Your task to perform on an android device: open app "WhatsApp Messenger" (install if not already installed), go to login, and select forgot password Image 0: 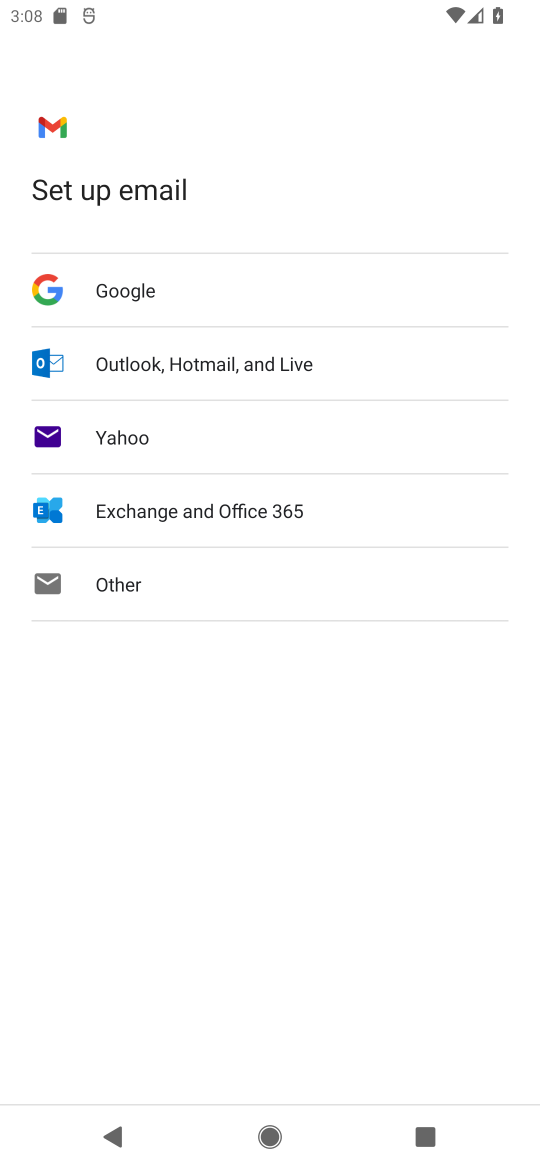
Step 0: press home button
Your task to perform on an android device: open app "WhatsApp Messenger" (install if not already installed), go to login, and select forgot password Image 1: 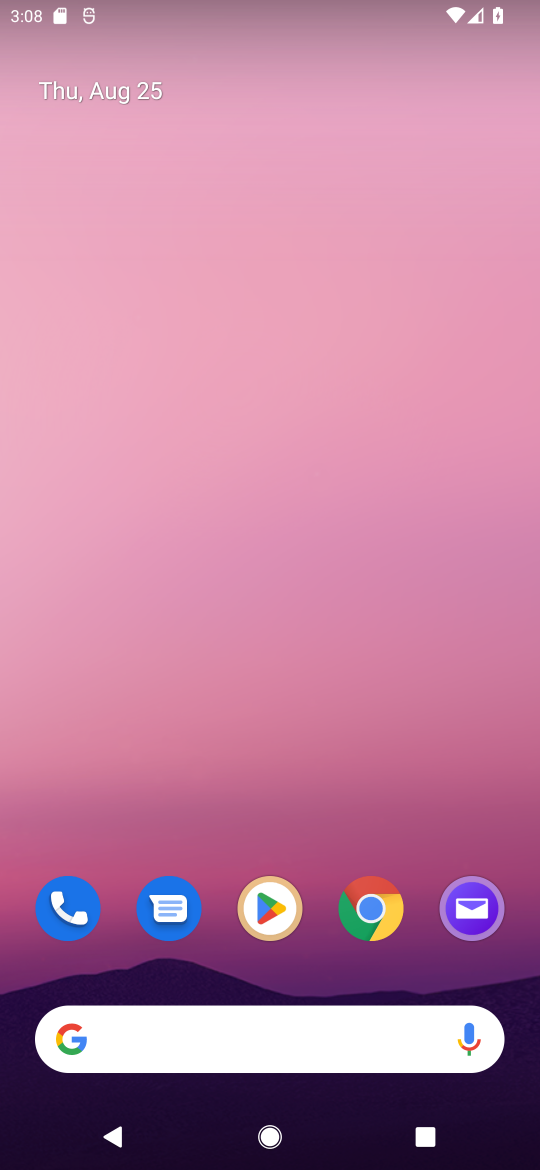
Step 1: click (281, 881)
Your task to perform on an android device: open app "WhatsApp Messenger" (install if not already installed), go to login, and select forgot password Image 2: 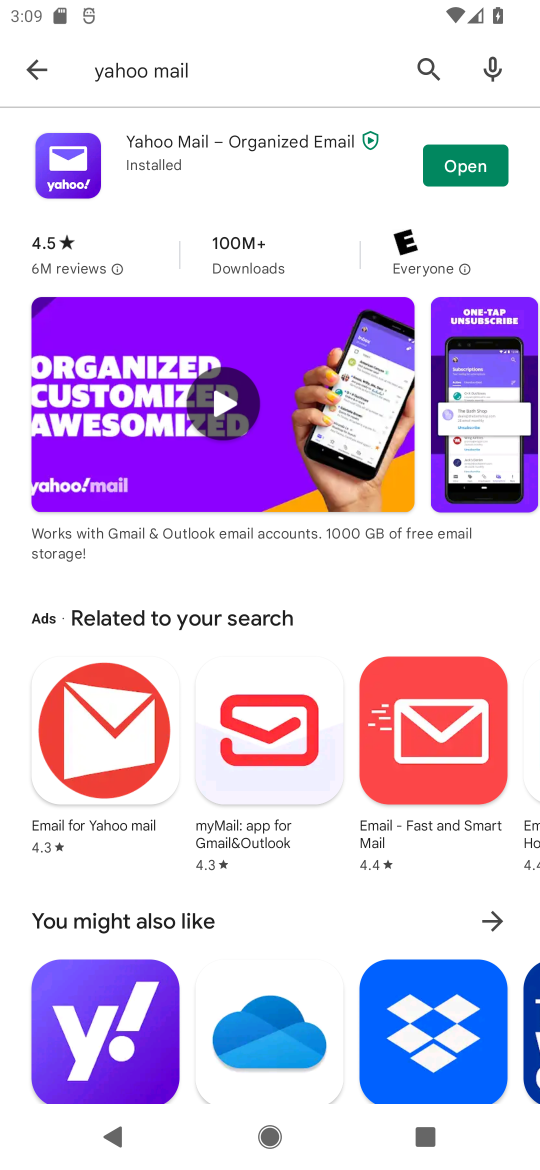
Step 2: click (433, 56)
Your task to perform on an android device: open app "WhatsApp Messenger" (install if not already installed), go to login, and select forgot password Image 3: 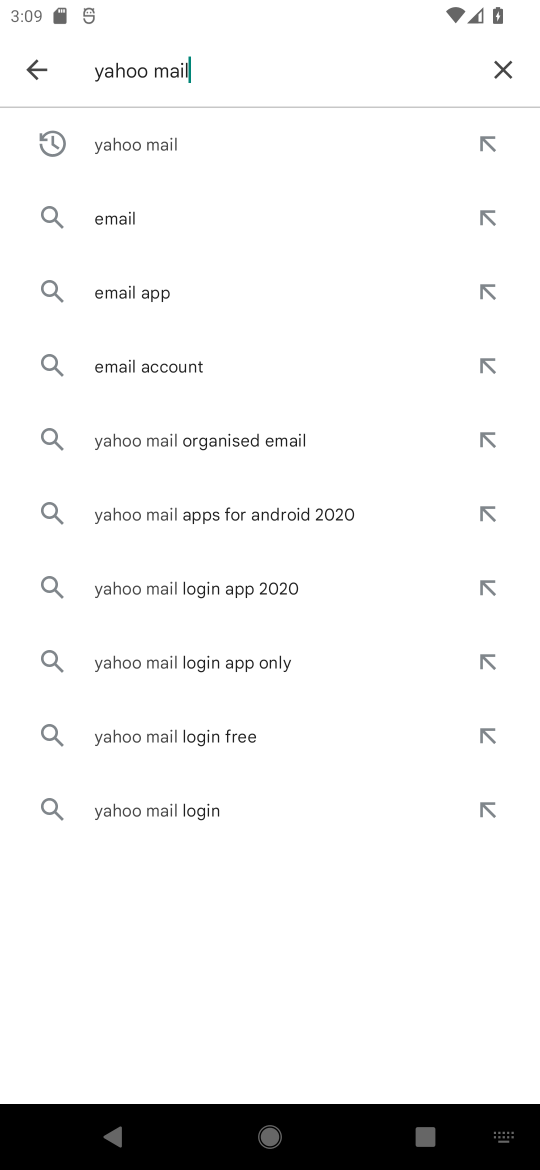
Step 3: click (503, 66)
Your task to perform on an android device: open app "WhatsApp Messenger" (install if not already installed), go to login, and select forgot password Image 4: 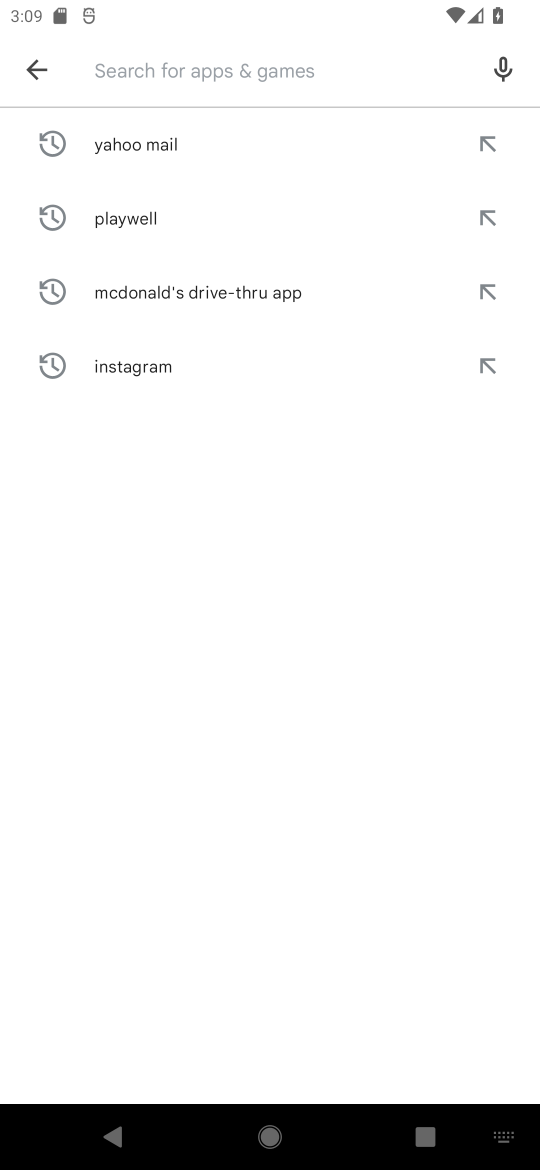
Step 4: type "WhatsApp Messenge"
Your task to perform on an android device: open app "WhatsApp Messenger" (install if not already installed), go to login, and select forgot password Image 5: 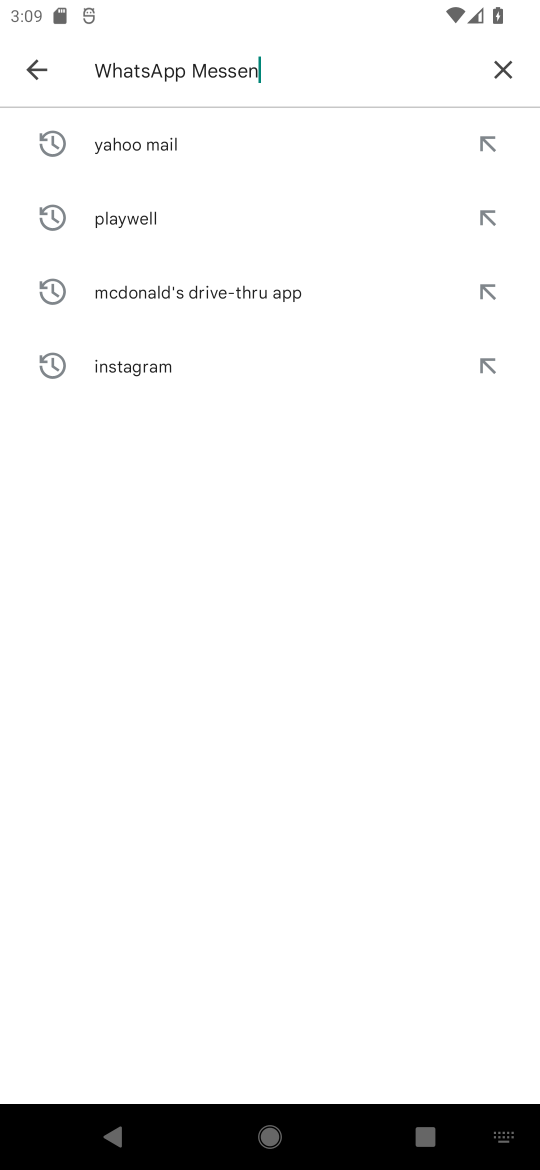
Step 5: type ""
Your task to perform on an android device: open app "WhatsApp Messenger" (install if not already installed), go to login, and select forgot password Image 6: 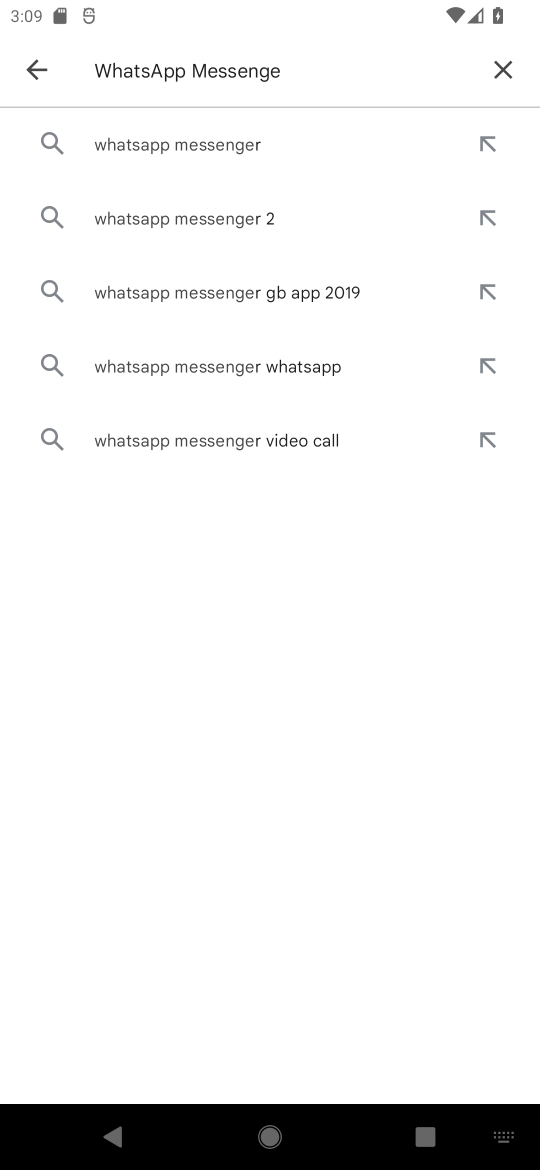
Step 6: click (229, 145)
Your task to perform on an android device: open app "WhatsApp Messenger" (install if not already installed), go to login, and select forgot password Image 7: 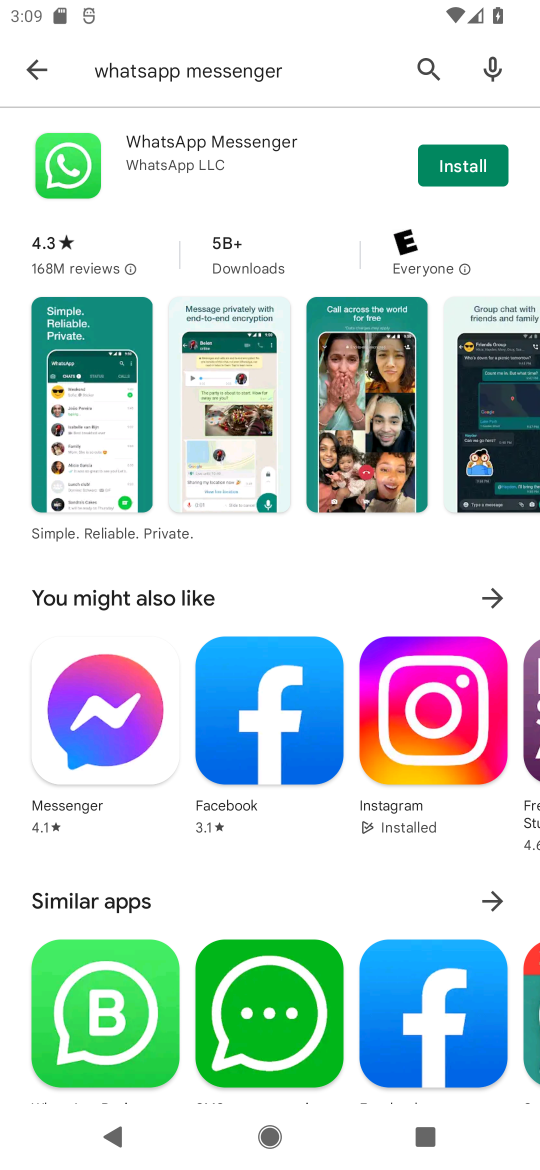
Step 7: click (471, 166)
Your task to perform on an android device: open app "WhatsApp Messenger" (install if not already installed), go to login, and select forgot password Image 8: 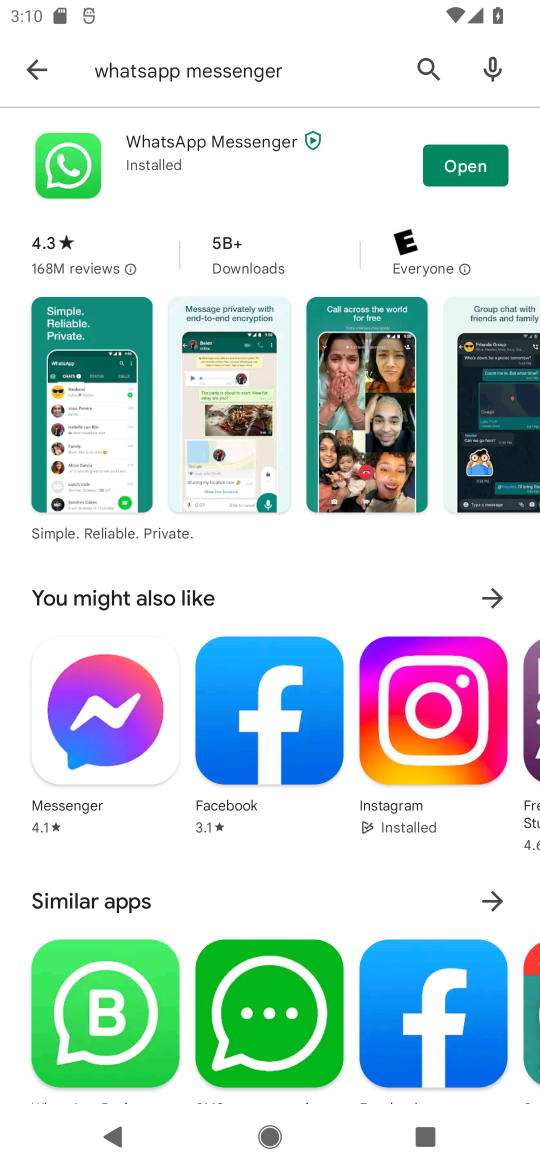
Step 8: click (470, 152)
Your task to perform on an android device: open app "WhatsApp Messenger" (install if not already installed), go to login, and select forgot password Image 9: 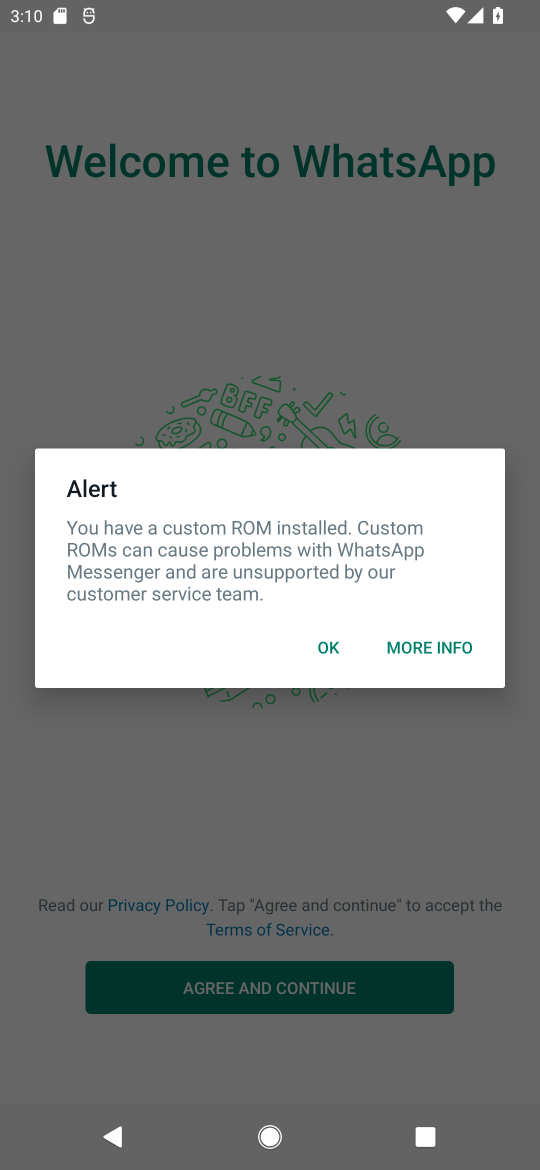
Step 9: task complete